Your task to perform on an android device: Open settings Image 0: 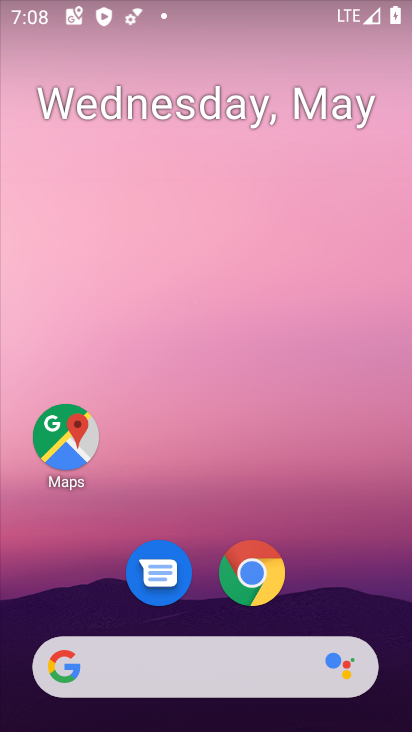
Step 0: drag from (319, 606) to (266, 65)
Your task to perform on an android device: Open settings Image 1: 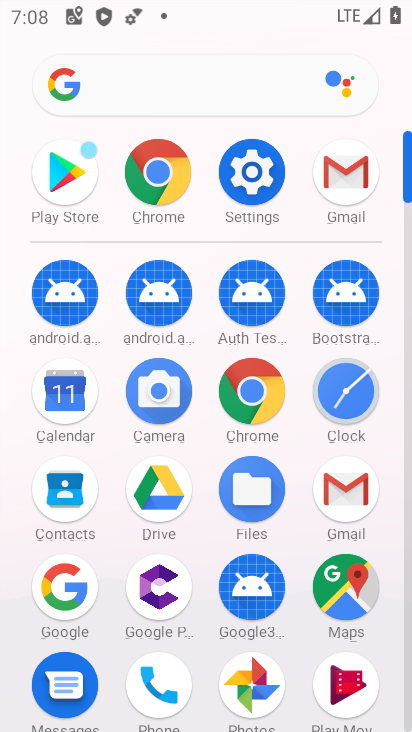
Step 1: click (254, 186)
Your task to perform on an android device: Open settings Image 2: 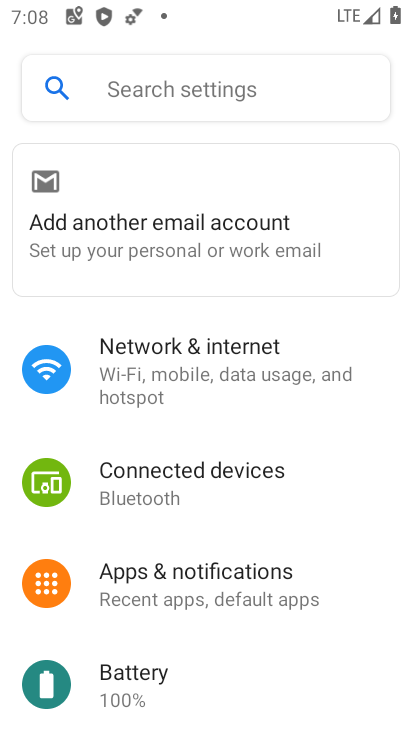
Step 2: task complete